Your task to perform on an android device: Open Amazon Image 0: 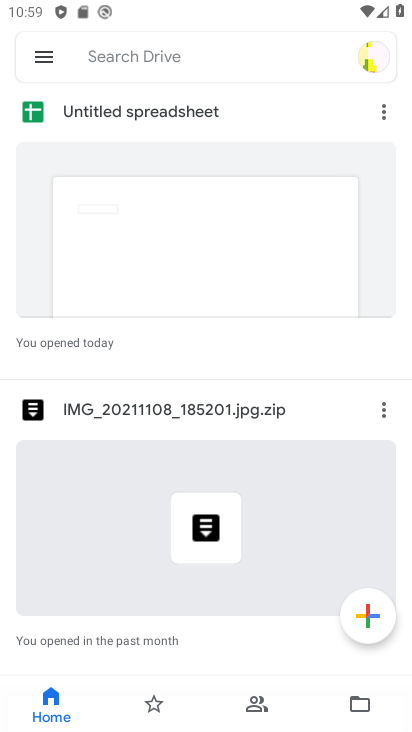
Step 0: press home button
Your task to perform on an android device: Open Amazon Image 1: 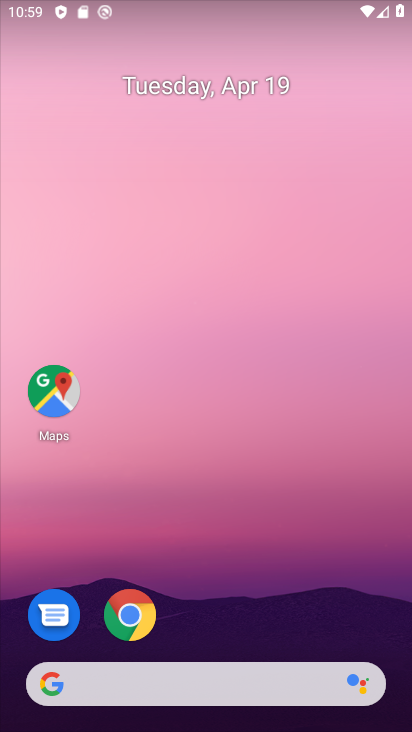
Step 1: click (126, 625)
Your task to perform on an android device: Open Amazon Image 2: 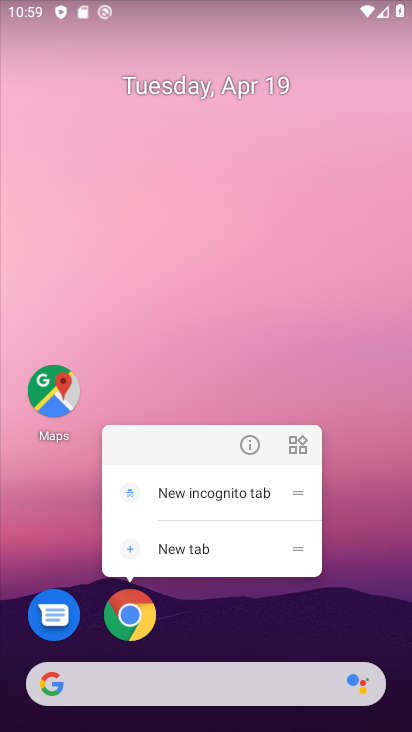
Step 2: click (121, 599)
Your task to perform on an android device: Open Amazon Image 3: 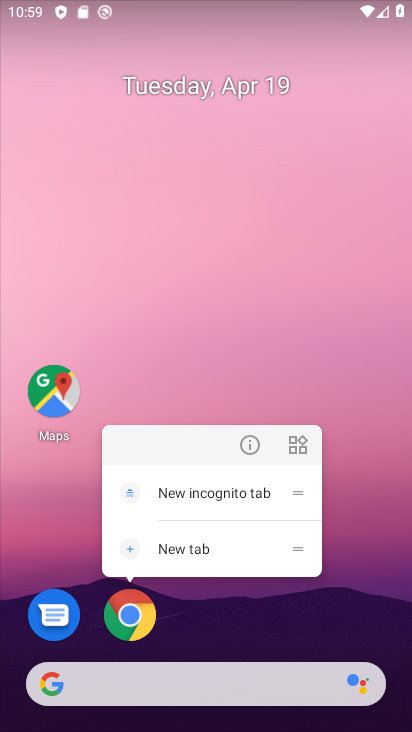
Step 3: click (125, 607)
Your task to perform on an android device: Open Amazon Image 4: 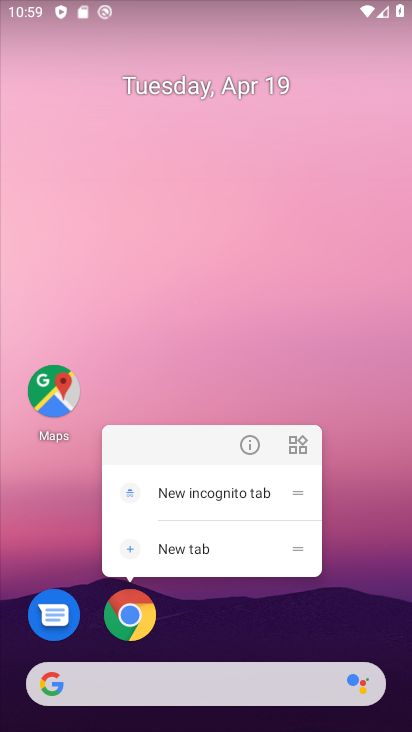
Step 4: click (140, 606)
Your task to perform on an android device: Open Amazon Image 5: 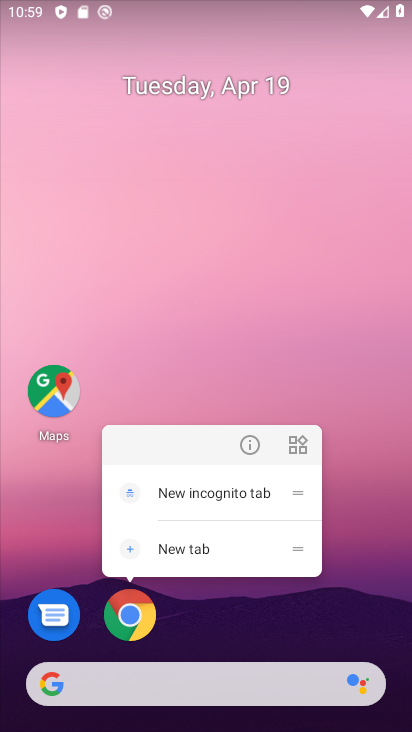
Step 5: click (141, 610)
Your task to perform on an android device: Open Amazon Image 6: 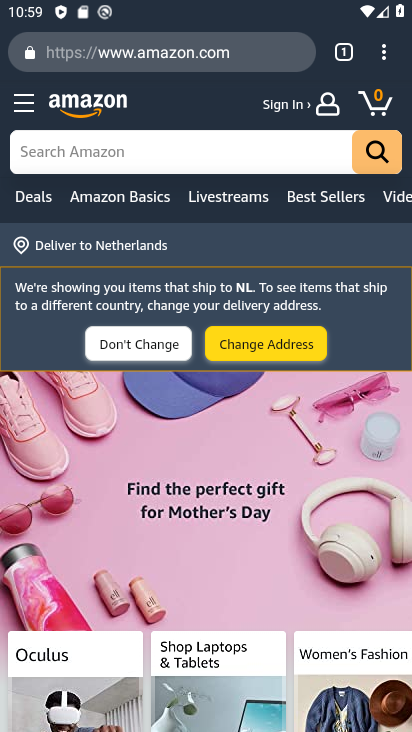
Step 6: task complete